Your task to perform on an android device: manage bookmarks in the chrome app Image 0: 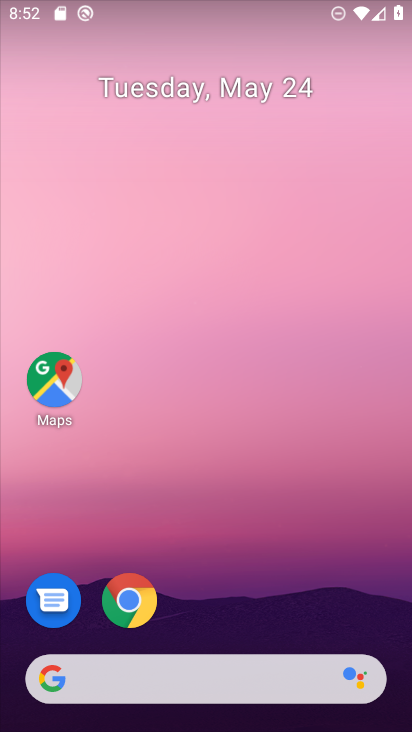
Step 0: click (128, 599)
Your task to perform on an android device: manage bookmarks in the chrome app Image 1: 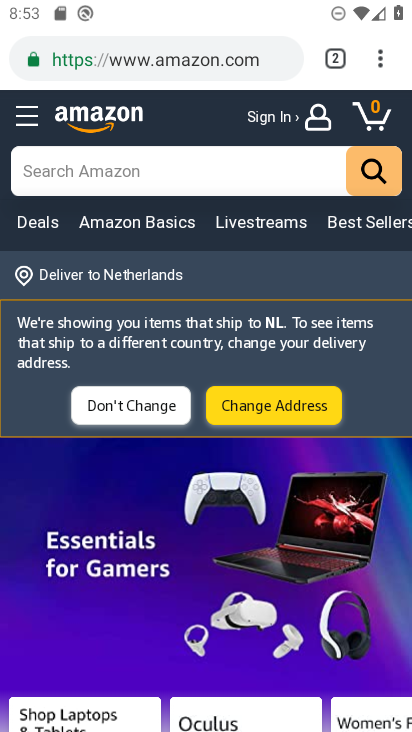
Step 1: click (393, 56)
Your task to perform on an android device: manage bookmarks in the chrome app Image 2: 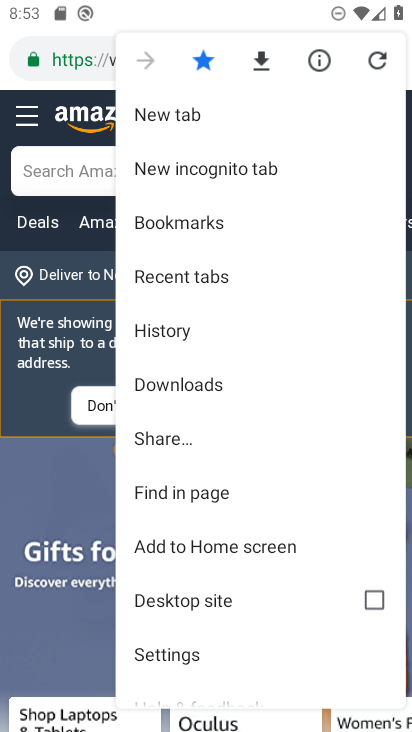
Step 2: click (175, 225)
Your task to perform on an android device: manage bookmarks in the chrome app Image 3: 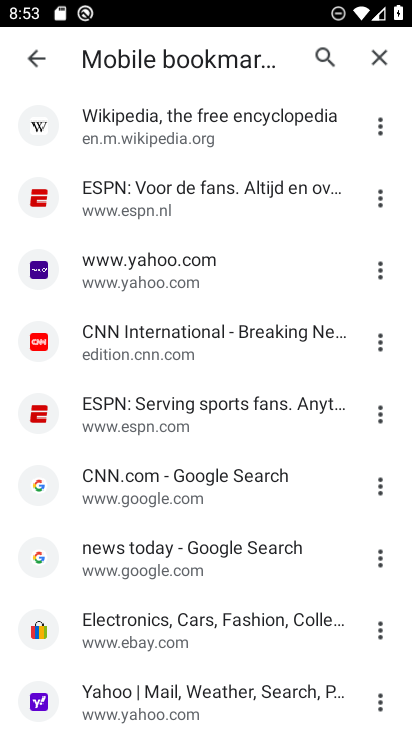
Step 3: click (384, 262)
Your task to perform on an android device: manage bookmarks in the chrome app Image 4: 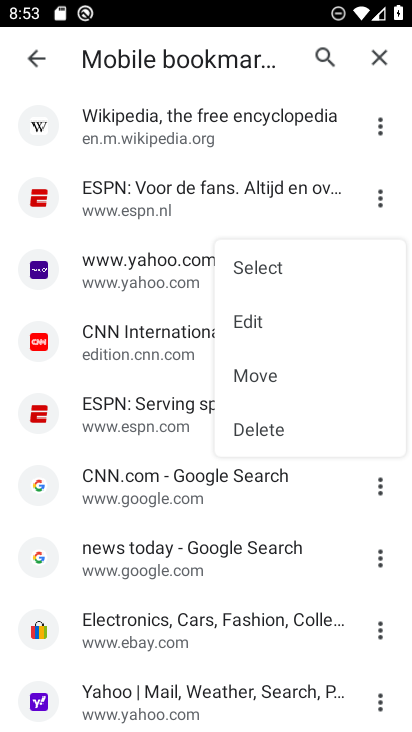
Step 4: click (255, 437)
Your task to perform on an android device: manage bookmarks in the chrome app Image 5: 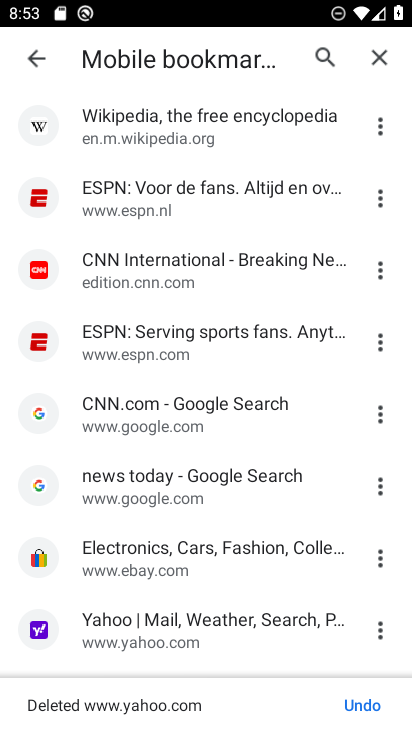
Step 5: task complete